Your task to perform on an android device: set the timer Image 0: 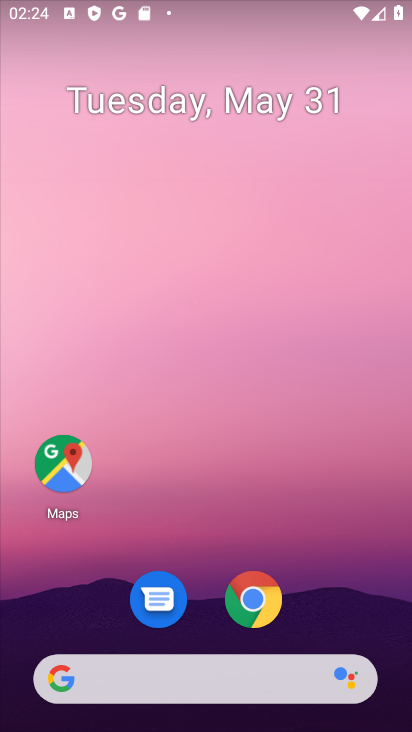
Step 0: drag from (350, 589) to (179, 53)
Your task to perform on an android device: set the timer Image 1: 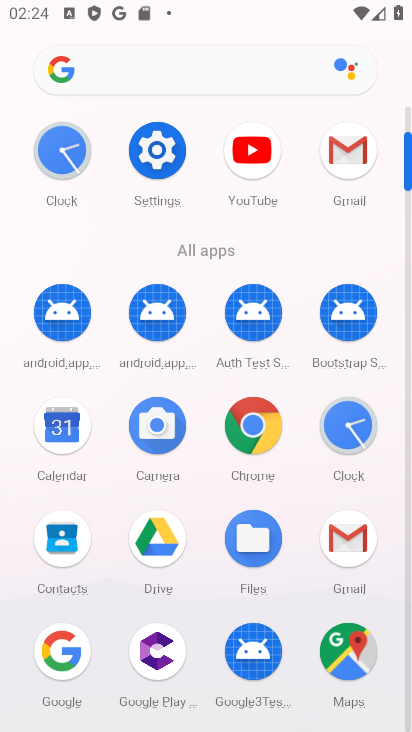
Step 1: click (63, 155)
Your task to perform on an android device: set the timer Image 2: 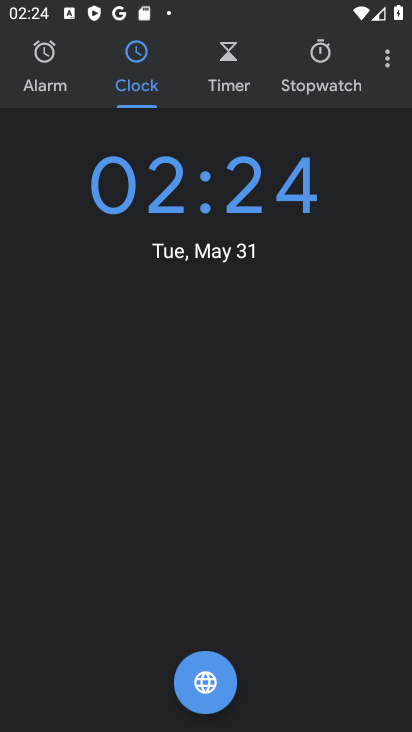
Step 2: click (232, 68)
Your task to perform on an android device: set the timer Image 3: 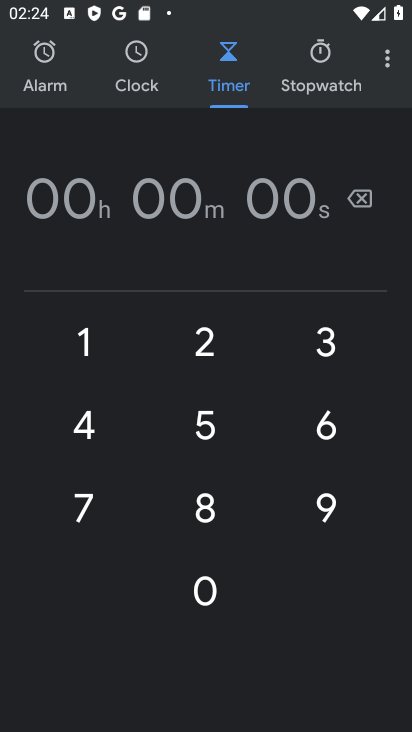
Step 3: click (71, 333)
Your task to perform on an android device: set the timer Image 4: 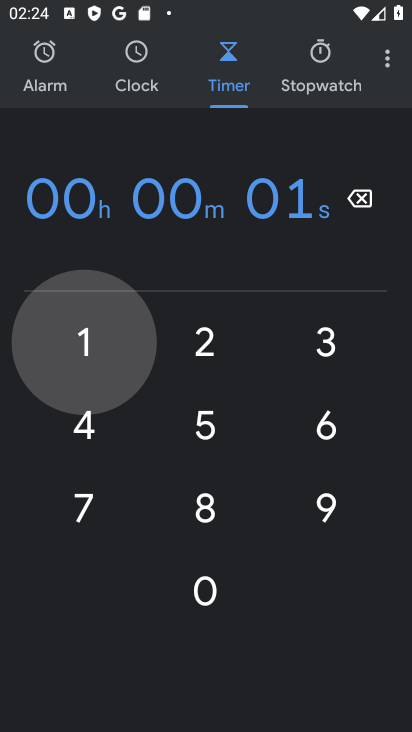
Step 4: click (74, 334)
Your task to perform on an android device: set the timer Image 5: 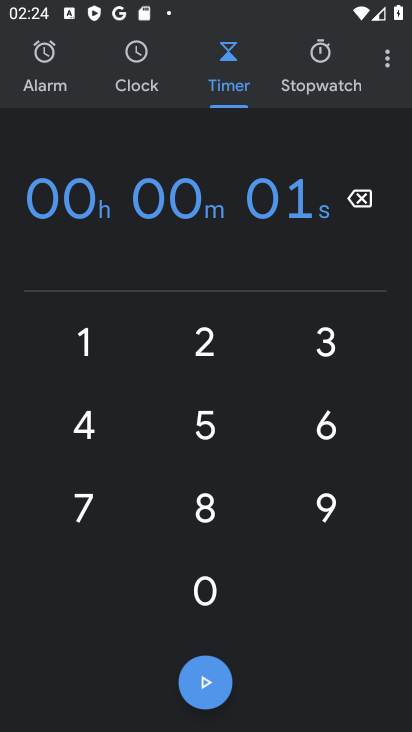
Step 5: click (74, 334)
Your task to perform on an android device: set the timer Image 6: 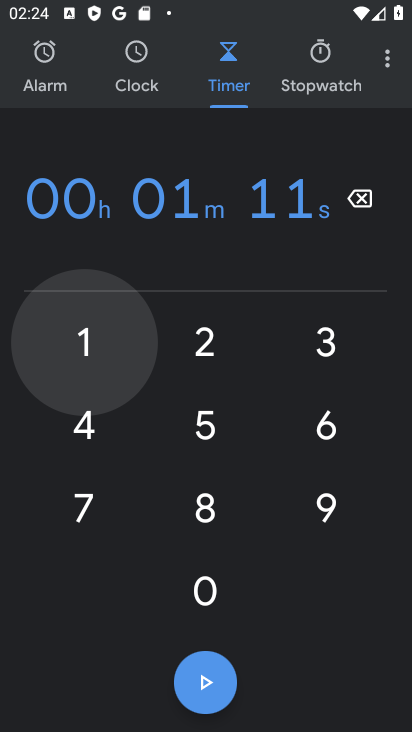
Step 6: click (72, 332)
Your task to perform on an android device: set the timer Image 7: 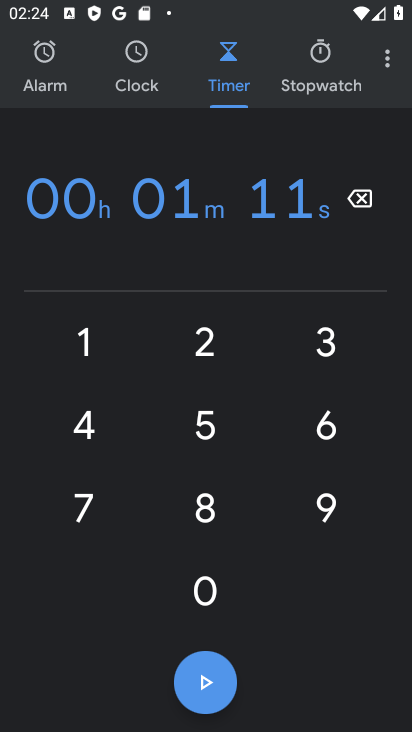
Step 7: click (72, 332)
Your task to perform on an android device: set the timer Image 8: 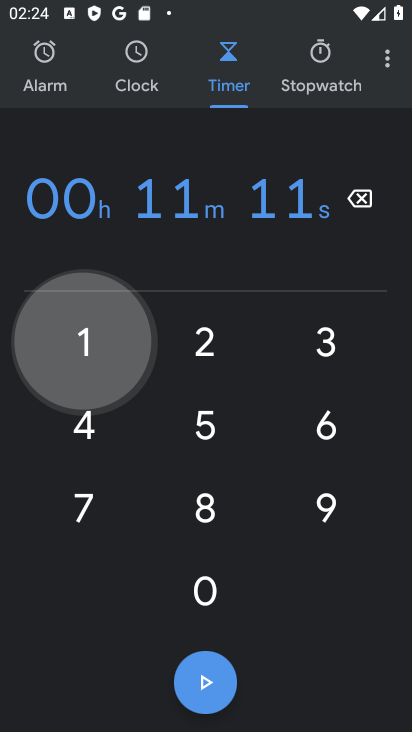
Step 8: click (72, 332)
Your task to perform on an android device: set the timer Image 9: 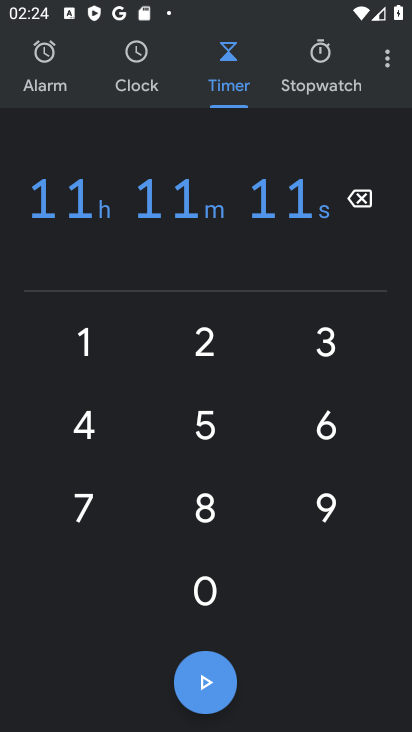
Step 9: click (219, 675)
Your task to perform on an android device: set the timer Image 10: 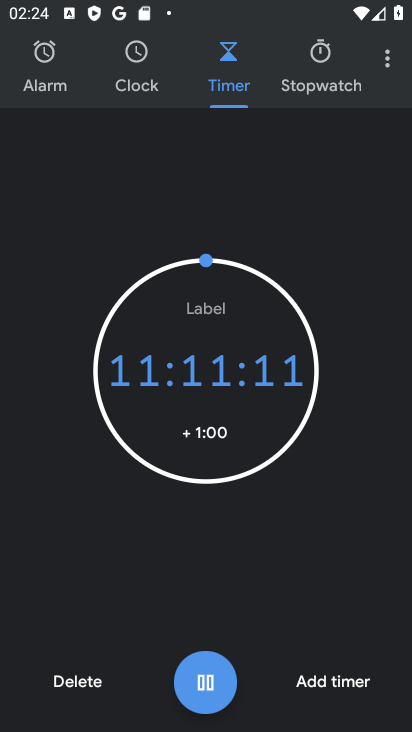
Step 10: task complete